Your task to perform on an android device: open chrome privacy settings Image 0: 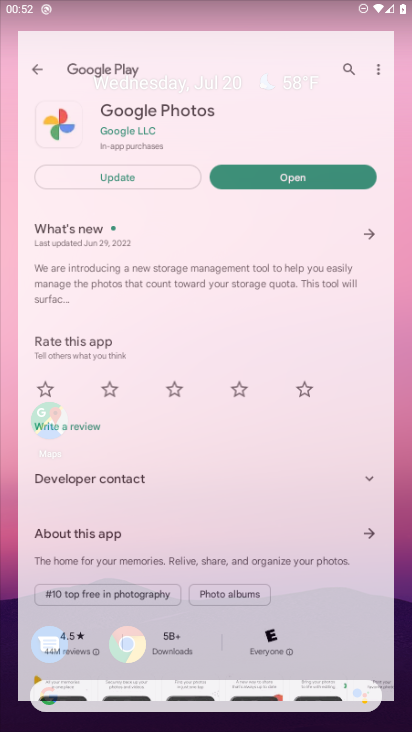
Step 0: drag from (18, 687) to (214, 141)
Your task to perform on an android device: open chrome privacy settings Image 1: 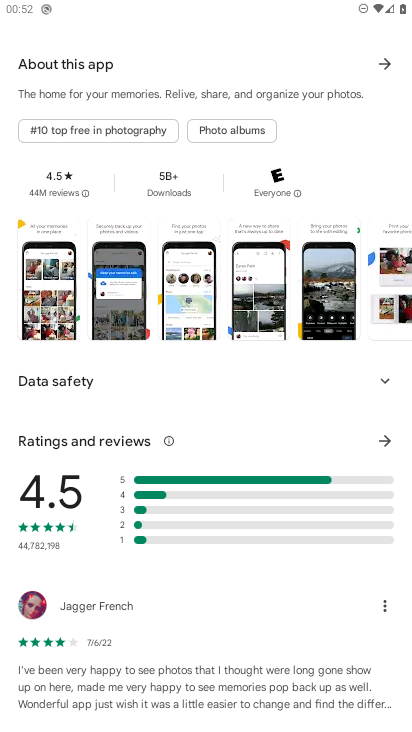
Step 1: press home button
Your task to perform on an android device: open chrome privacy settings Image 2: 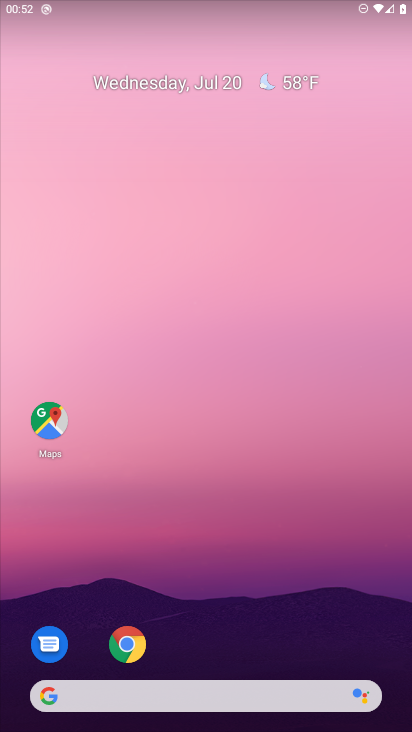
Step 2: click (127, 651)
Your task to perform on an android device: open chrome privacy settings Image 3: 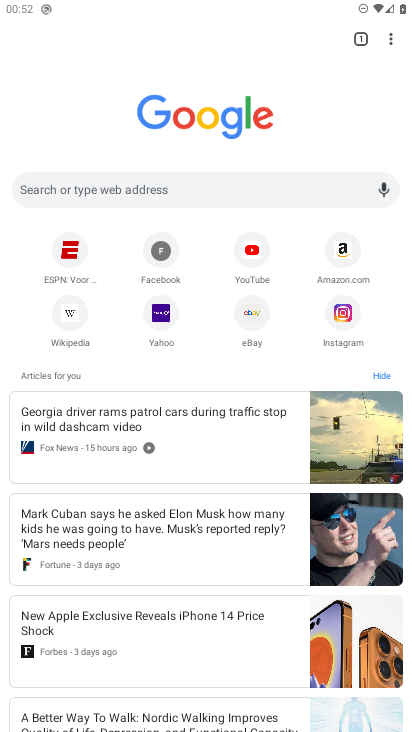
Step 3: click (387, 35)
Your task to perform on an android device: open chrome privacy settings Image 4: 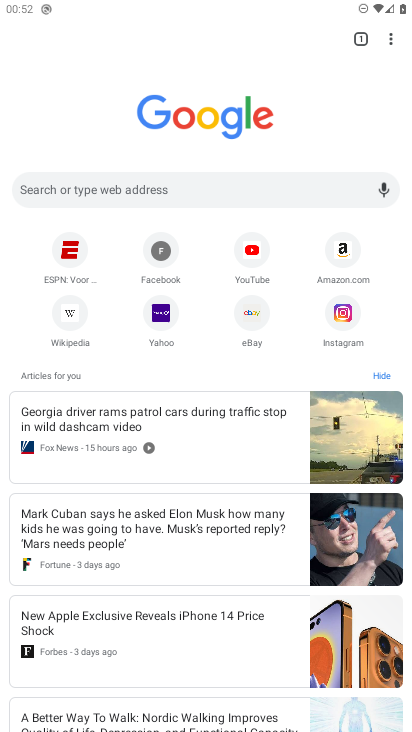
Step 4: click (392, 34)
Your task to perform on an android device: open chrome privacy settings Image 5: 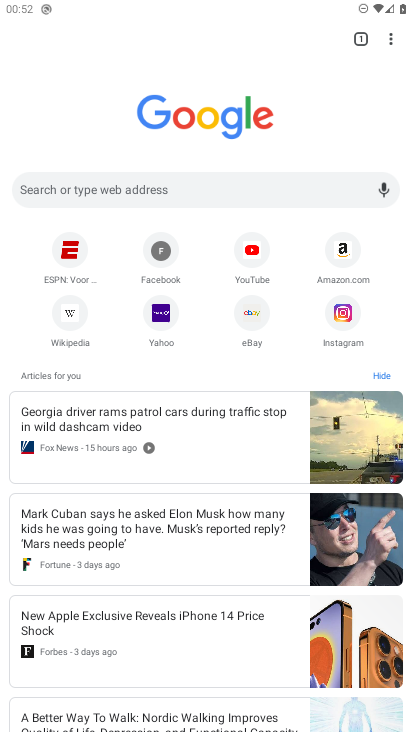
Step 5: click (390, 35)
Your task to perform on an android device: open chrome privacy settings Image 6: 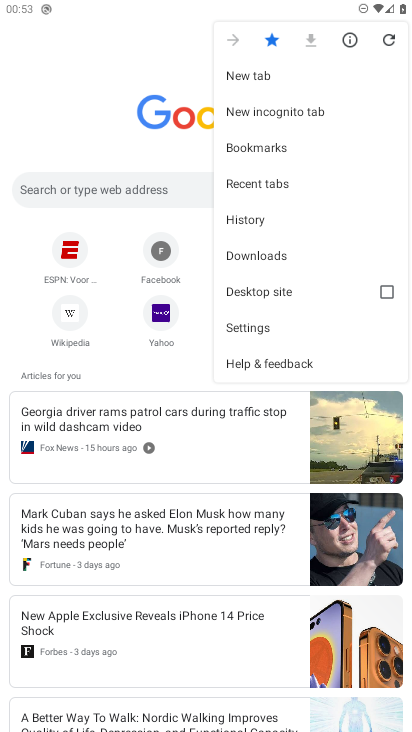
Step 6: click (260, 328)
Your task to perform on an android device: open chrome privacy settings Image 7: 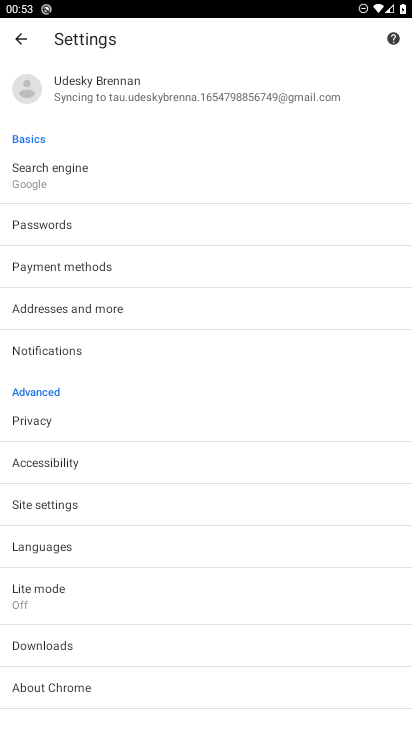
Step 7: click (68, 419)
Your task to perform on an android device: open chrome privacy settings Image 8: 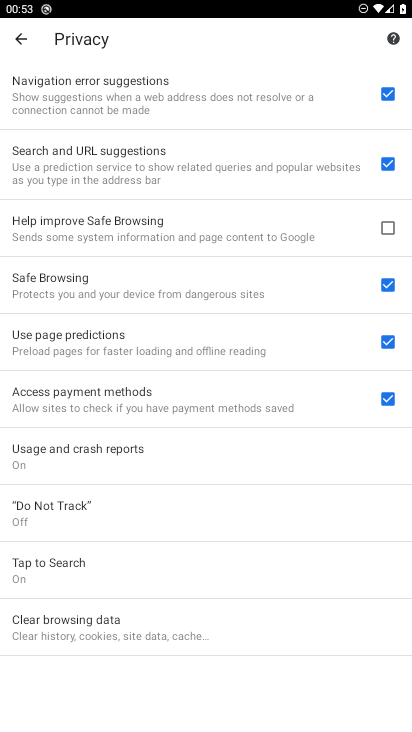
Step 8: task complete